Your task to perform on an android device: toggle notification dots Image 0: 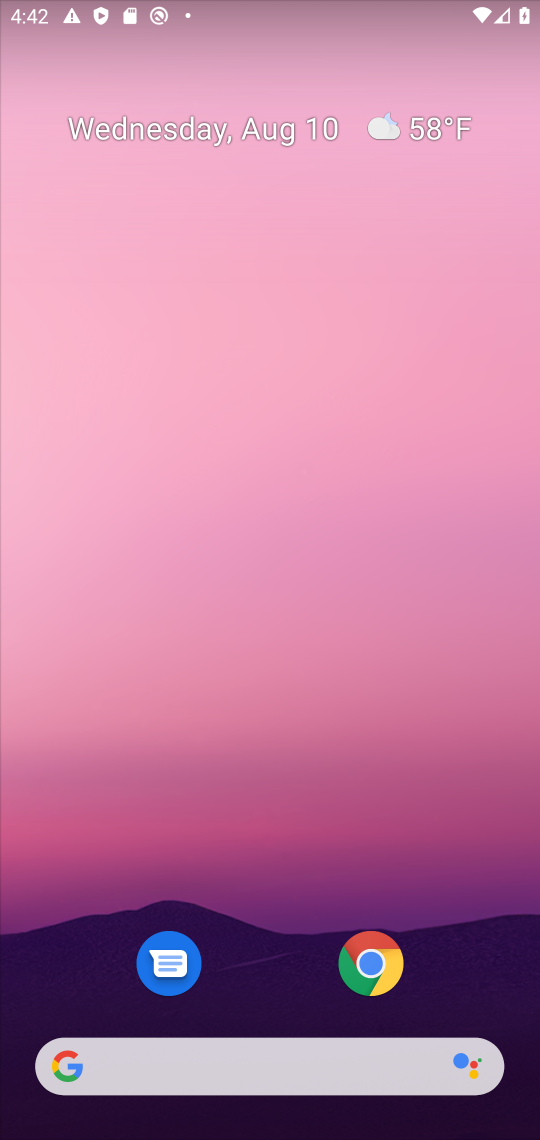
Step 0: drag from (251, 902) to (382, 72)
Your task to perform on an android device: toggle notification dots Image 1: 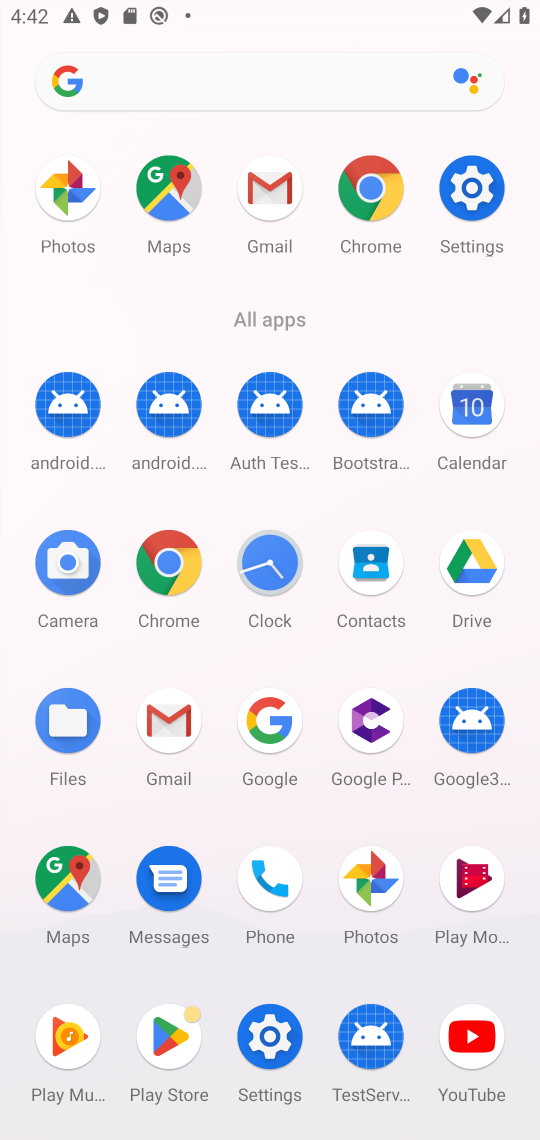
Step 1: click (271, 1042)
Your task to perform on an android device: toggle notification dots Image 2: 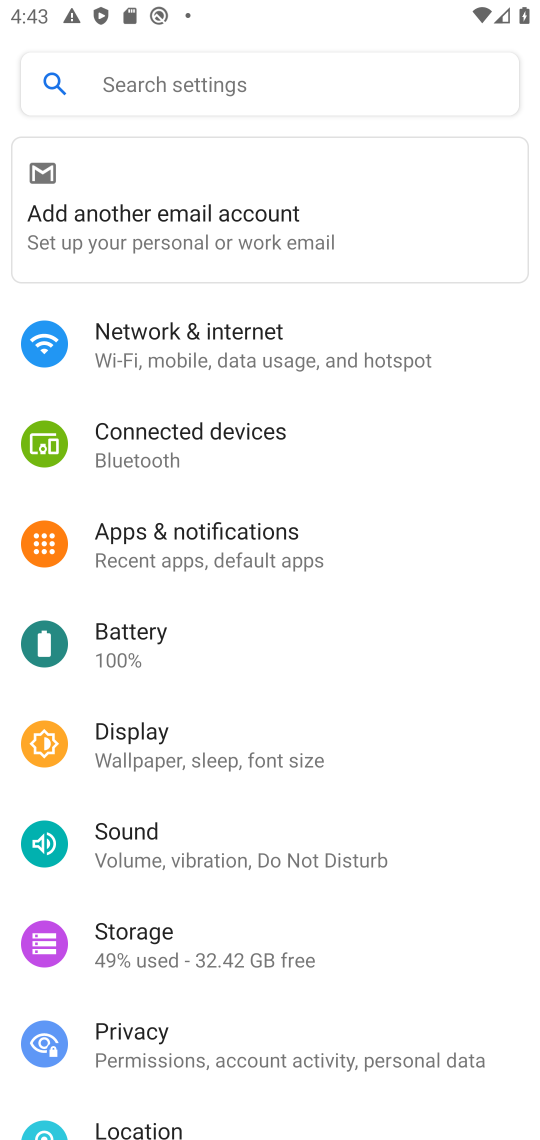
Step 2: click (265, 525)
Your task to perform on an android device: toggle notification dots Image 3: 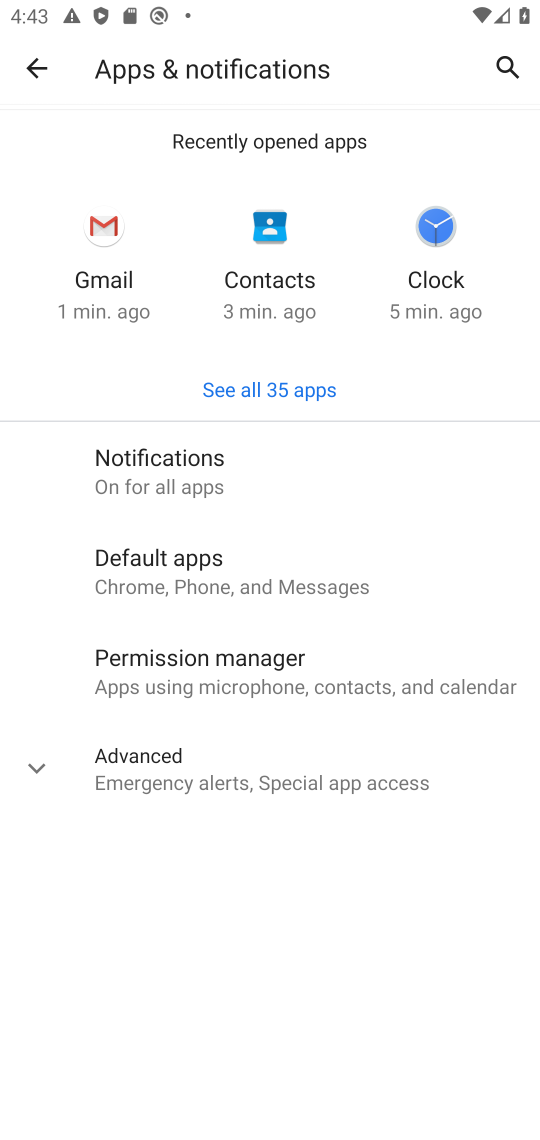
Step 3: click (196, 471)
Your task to perform on an android device: toggle notification dots Image 4: 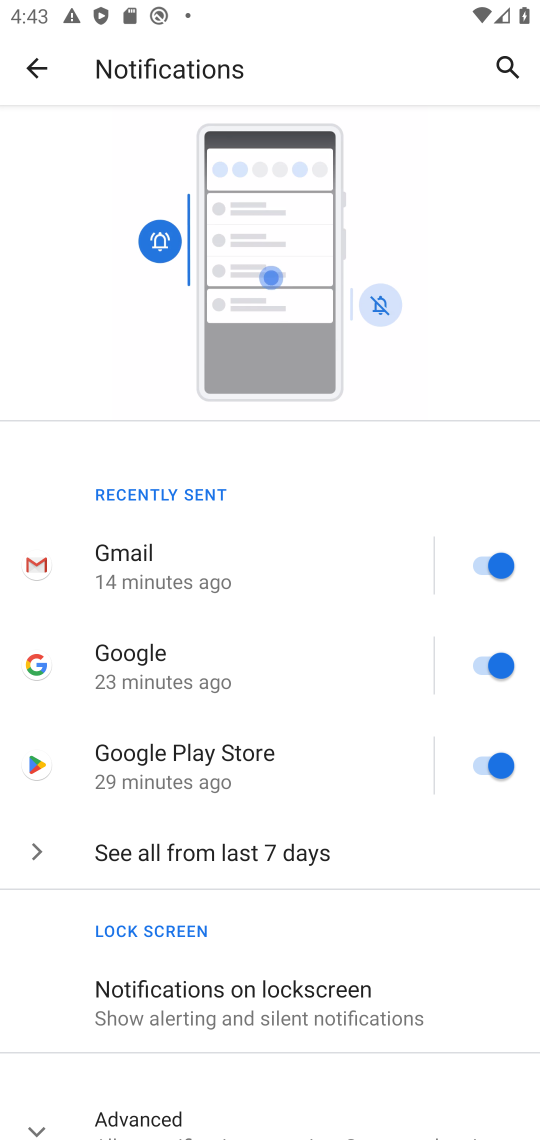
Step 4: drag from (344, 938) to (415, 292)
Your task to perform on an android device: toggle notification dots Image 5: 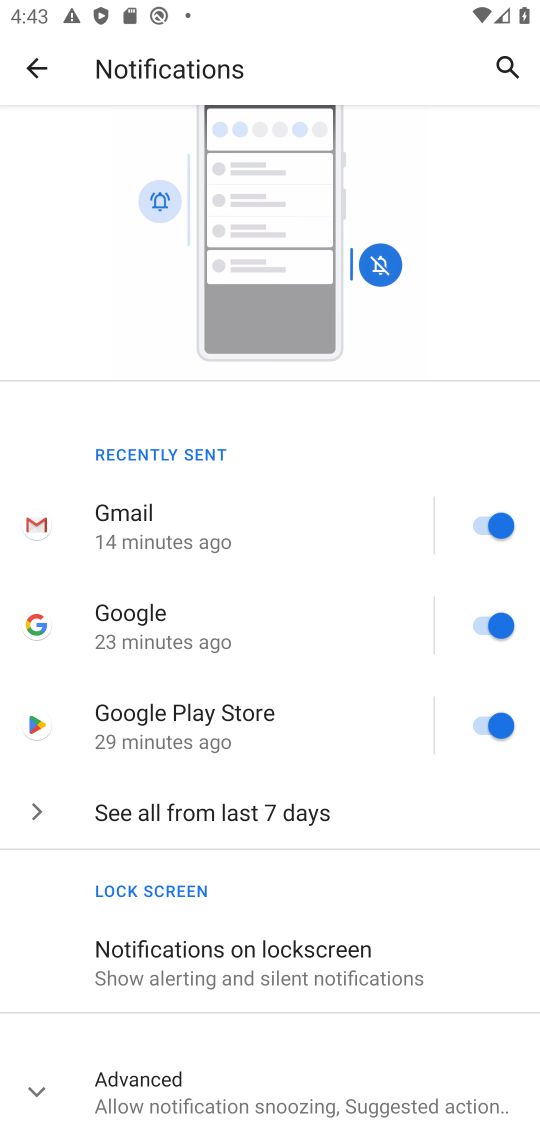
Step 5: click (106, 1086)
Your task to perform on an android device: toggle notification dots Image 6: 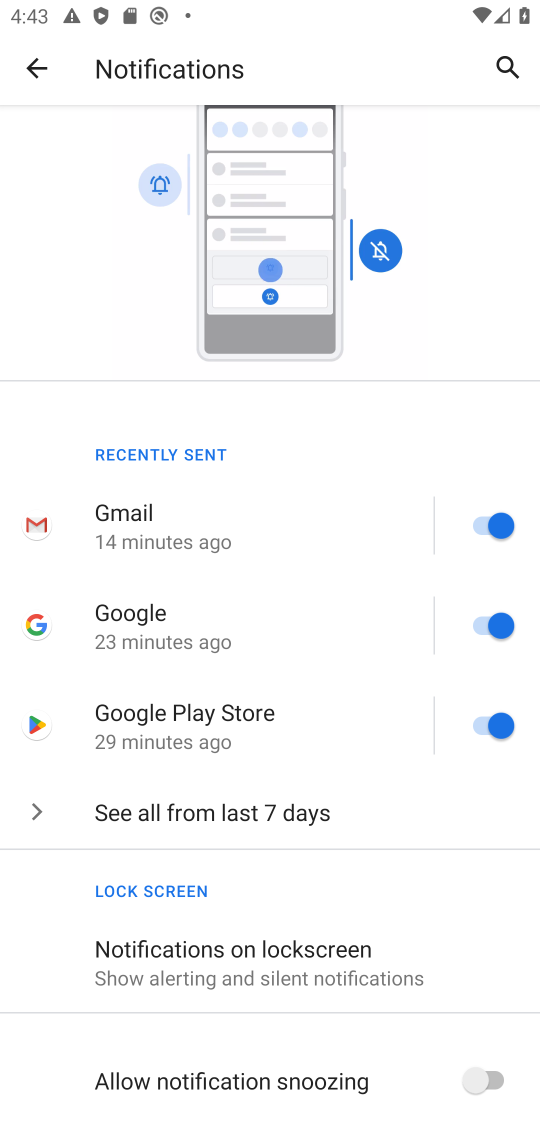
Step 6: drag from (311, 860) to (381, 269)
Your task to perform on an android device: toggle notification dots Image 7: 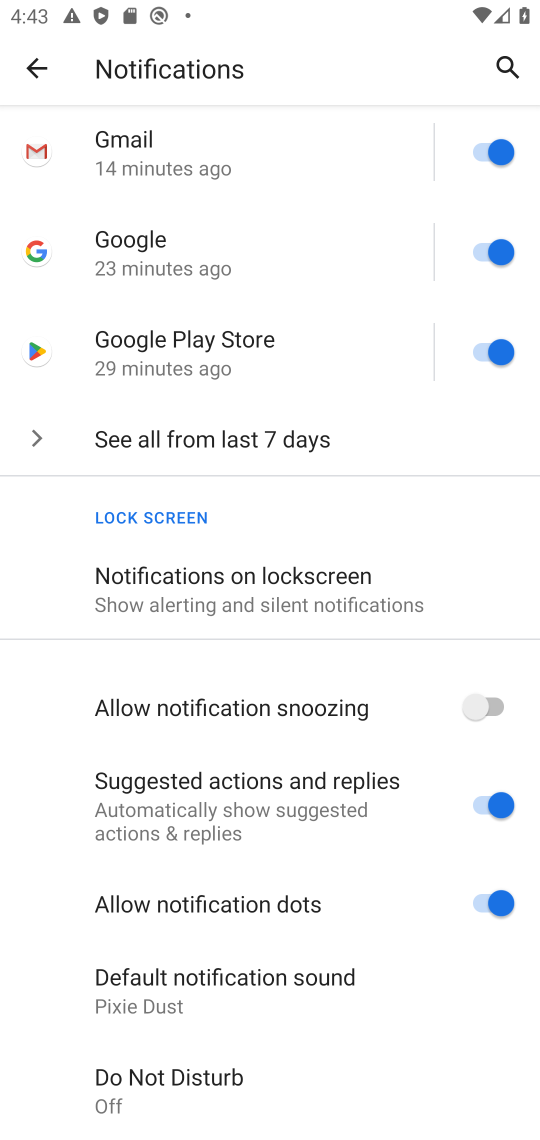
Step 7: click (459, 885)
Your task to perform on an android device: toggle notification dots Image 8: 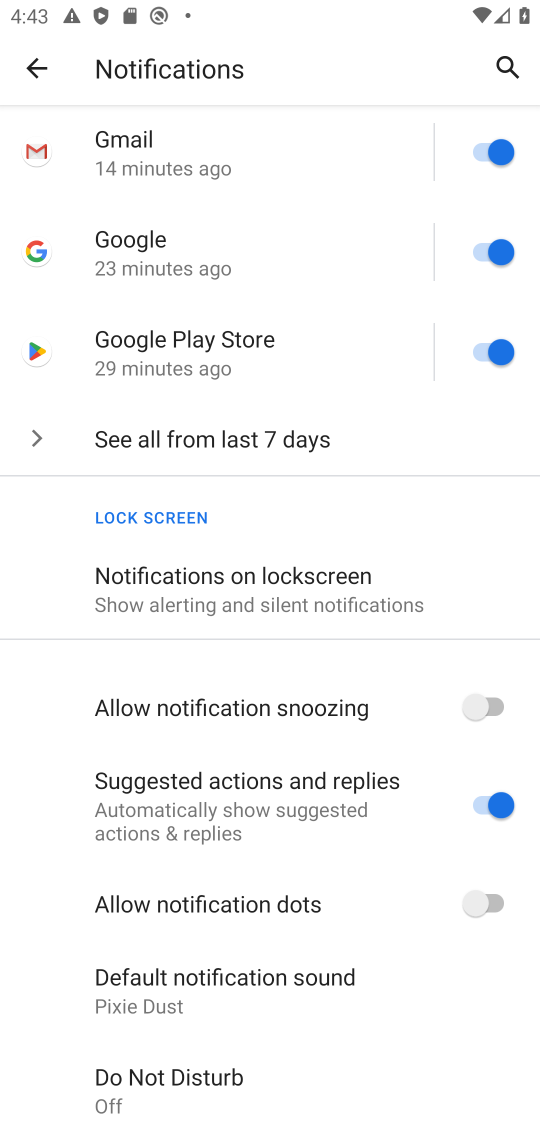
Step 8: task complete